Your task to perform on an android device: Go to Maps Image 0: 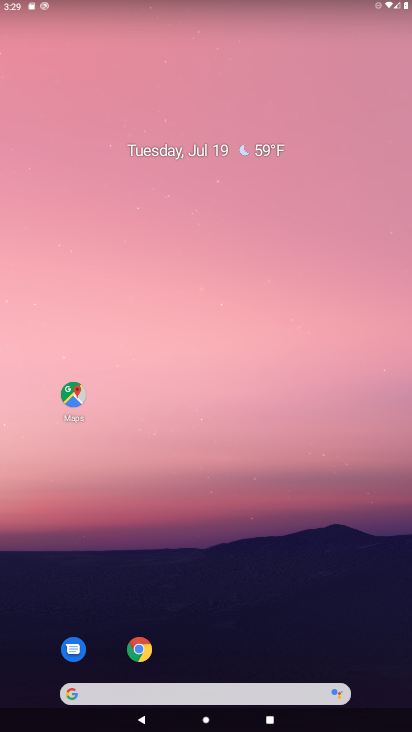
Step 0: click (72, 395)
Your task to perform on an android device: Go to Maps Image 1: 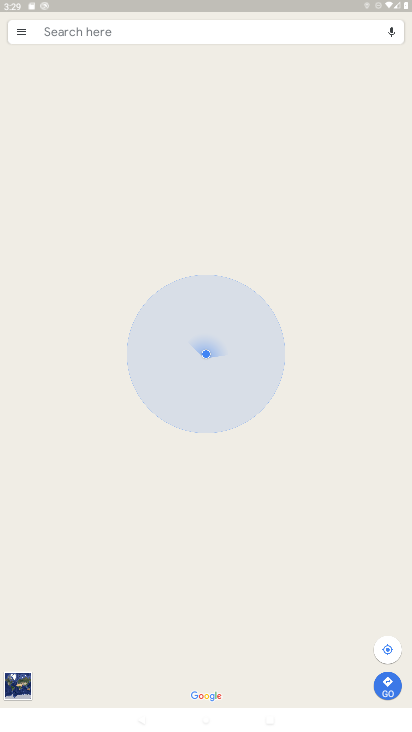
Step 1: task complete